Your task to perform on an android device: toggle airplane mode Image 0: 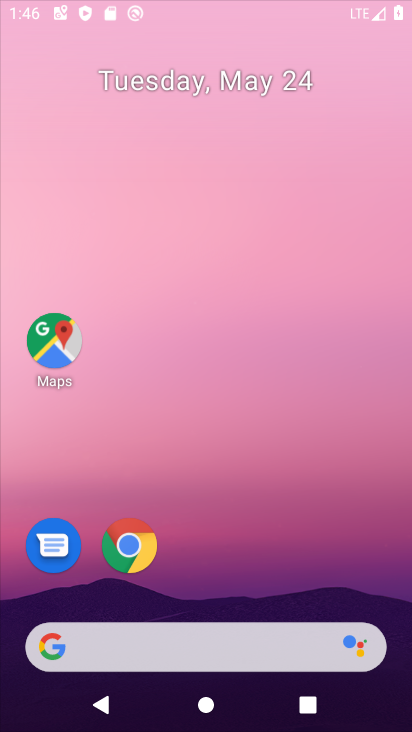
Step 0: click (296, 164)
Your task to perform on an android device: toggle airplane mode Image 1: 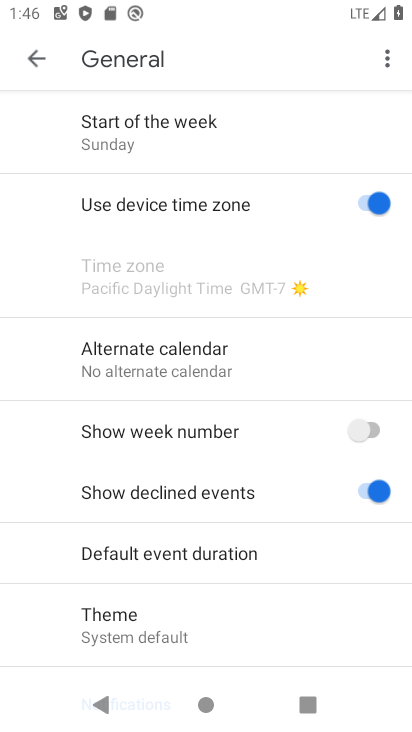
Step 1: press home button
Your task to perform on an android device: toggle airplane mode Image 2: 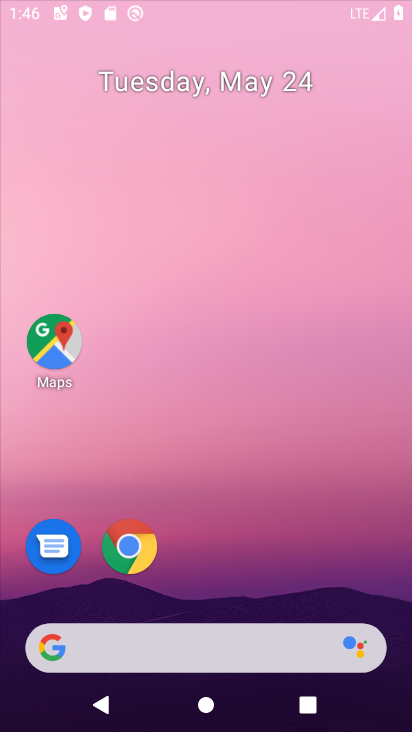
Step 2: drag from (241, 611) to (301, 151)
Your task to perform on an android device: toggle airplane mode Image 3: 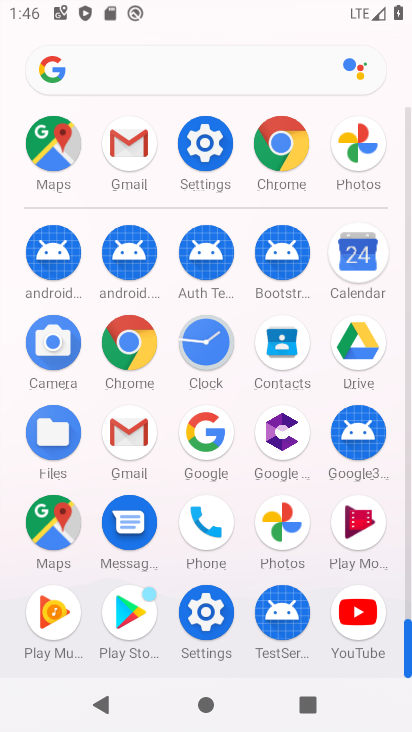
Step 3: click (199, 149)
Your task to perform on an android device: toggle airplane mode Image 4: 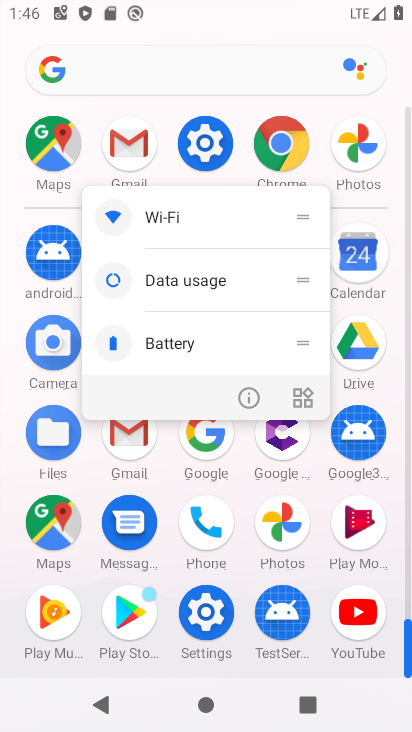
Step 4: click (255, 403)
Your task to perform on an android device: toggle airplane mode Image 5: 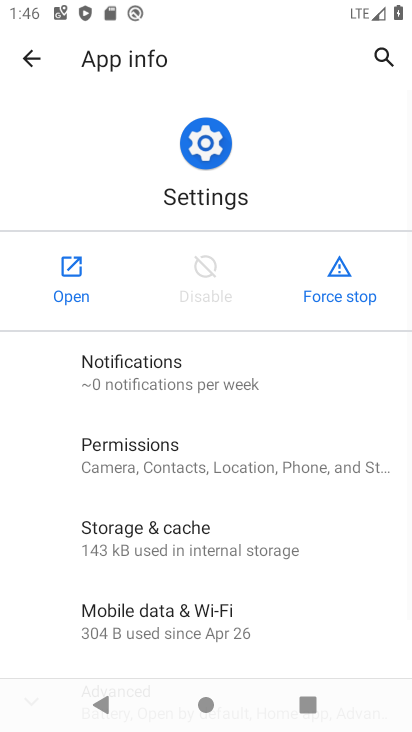
Step 5: click (61, 286)
Your task to perform on an android device: toggle airplane mode Image 6: 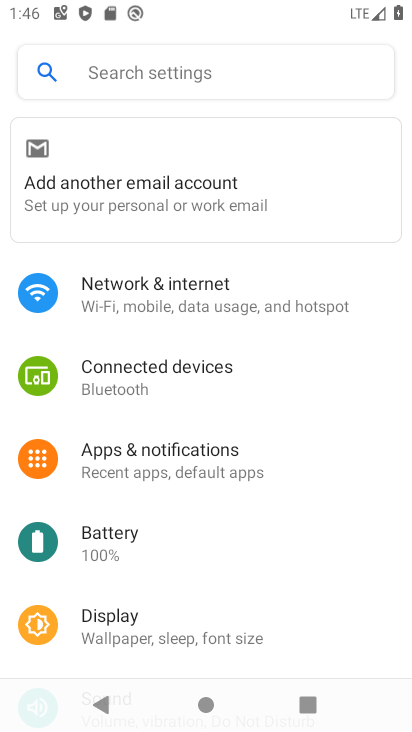
Step 6: click (136, 291)
Your task to perform on an android device: toggle airplane mode Image 7: 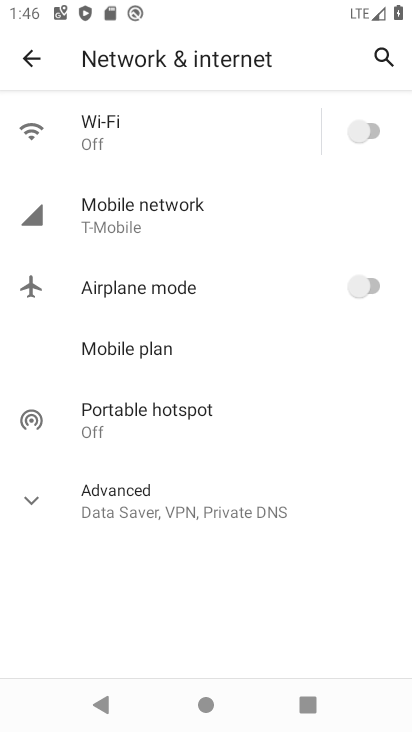
Step 7: click (135, 302)
Your task to perform on an android device: toggle airplane mode Image 8: 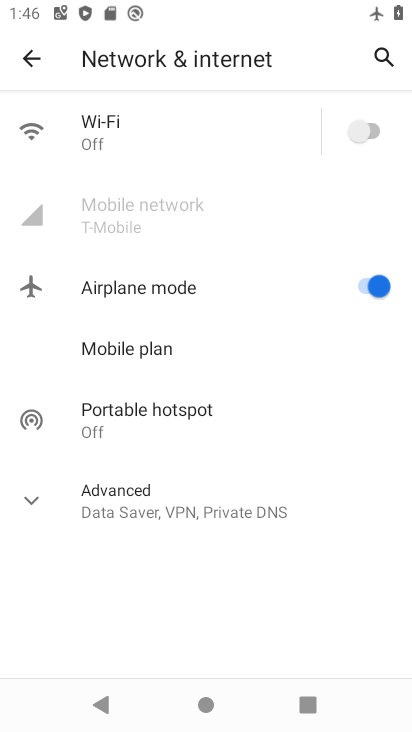
Step 8: task complete